Your task to perform on an android device: Show me popular games on the Play Store Image 0: 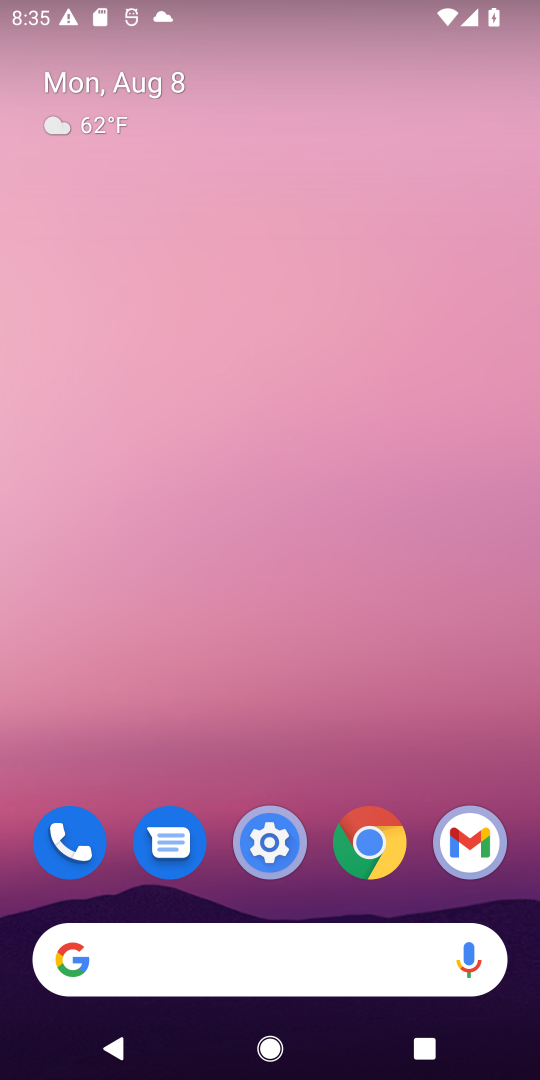
Step 0: drag from (295, 750) to (400, 0)
Your task to perform on an android device: Show me popular games on the Play Store Image 1: 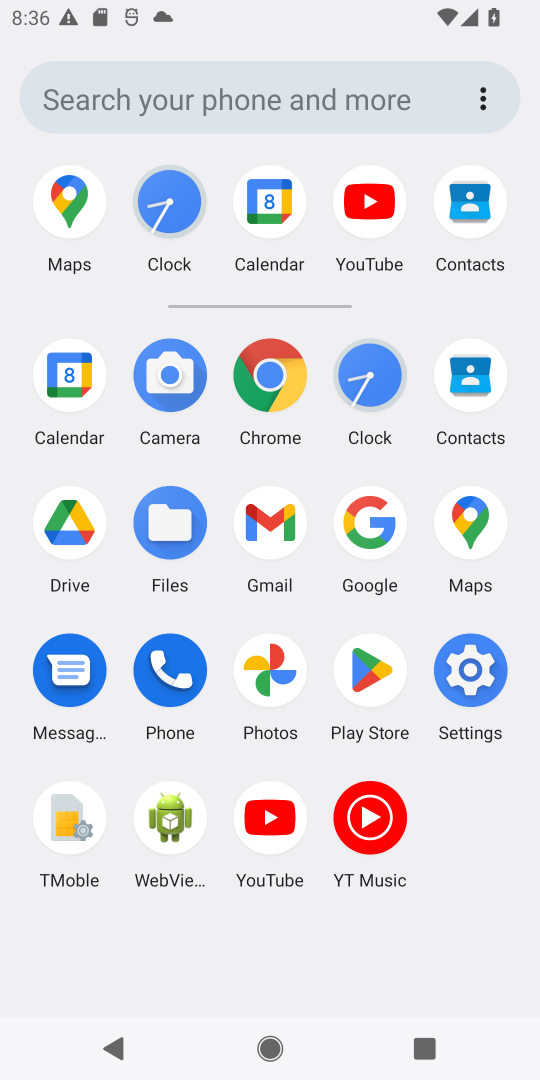
Step 1: click (381, 667)
Your task to perform on an android device: Show me popular games on the Play Store Image 2: 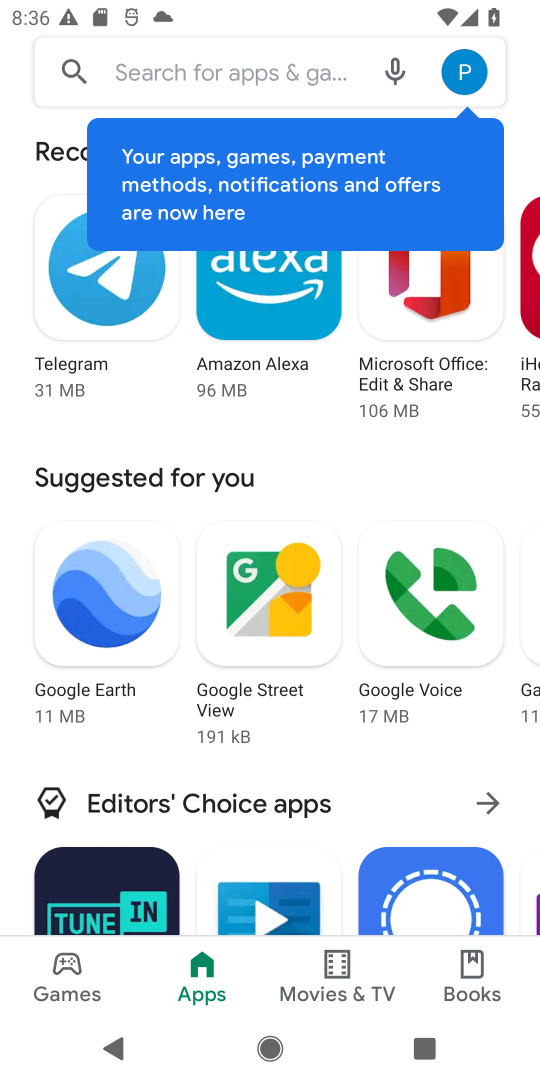
Step 2: click (51, 961)
Your task to perform on an android device: Show me popular games on the Play Store Image 3: 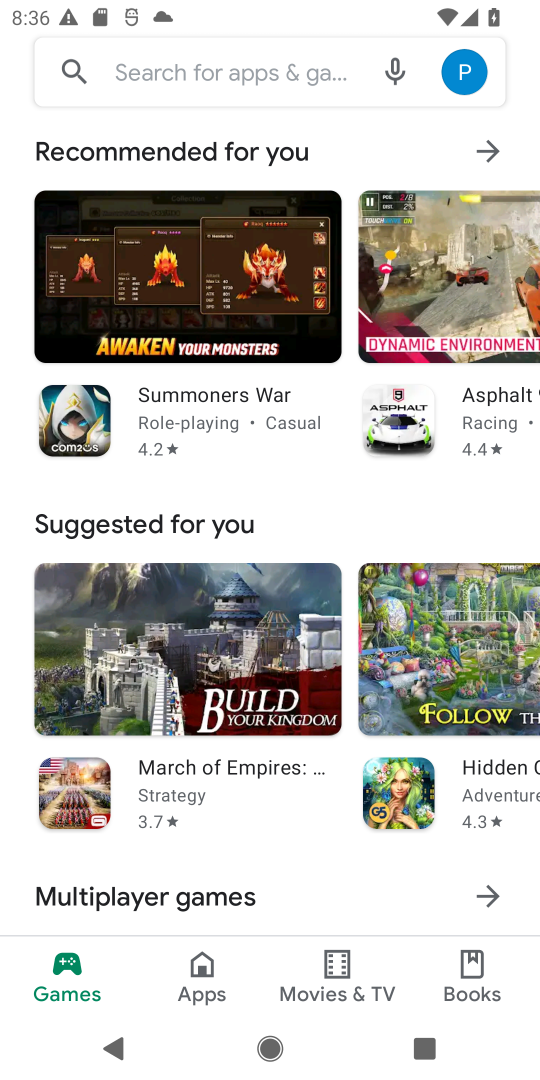
Step 3: task complete